Your task to perform on an android device: change the clock style Image 0: 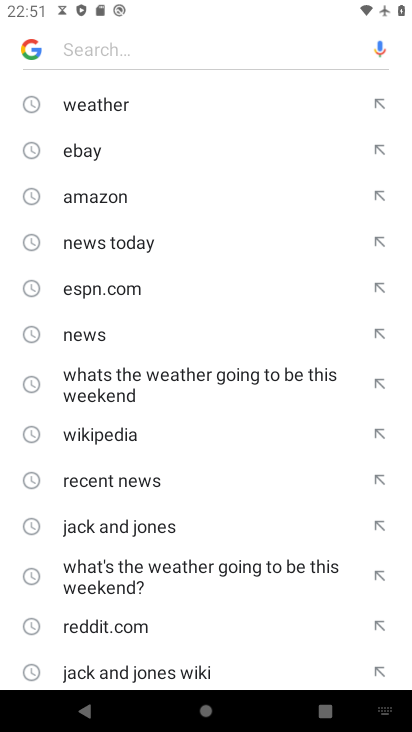
Step 0: press back button
Your task to perform on an android device: change the clock style Image 1: 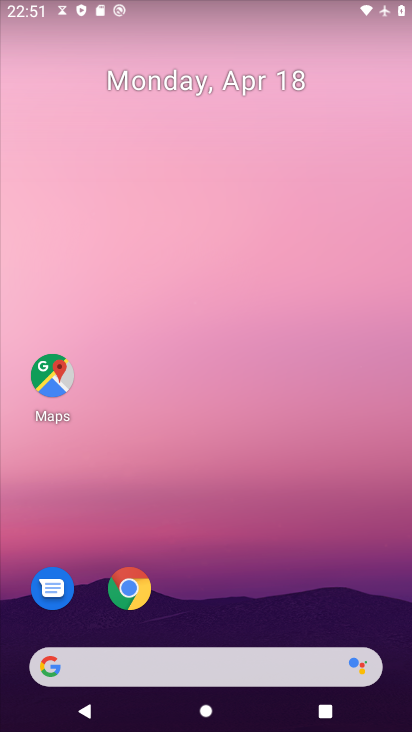
Step 1: drag from (351, 541) to (172, 4)
Your task to perform on an android device: change the clock style Image 2: 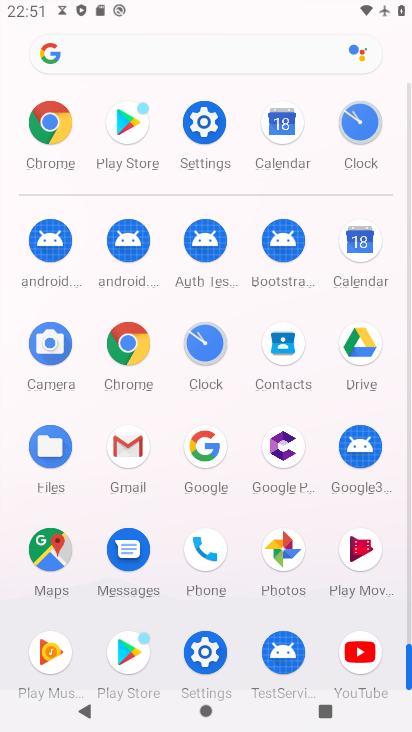
Step 2: drag from (12, 392) to (1, 196)
Your task to perform on an android device: change the clock style Image 3: 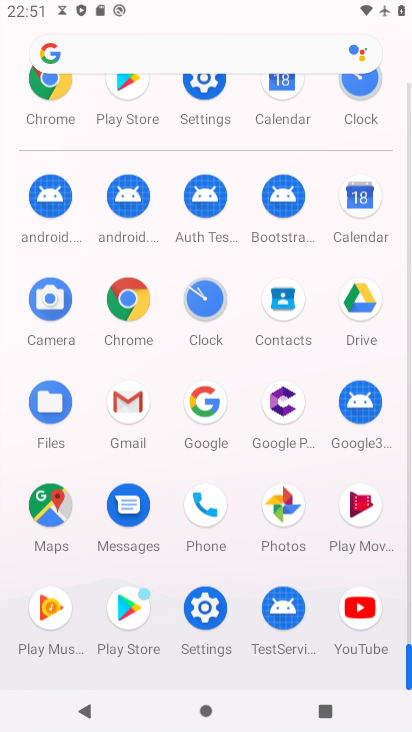
Step 3: drag from (10, 201) to (12, 368)
Your task to perform on an android device: change the clock style Image 4: 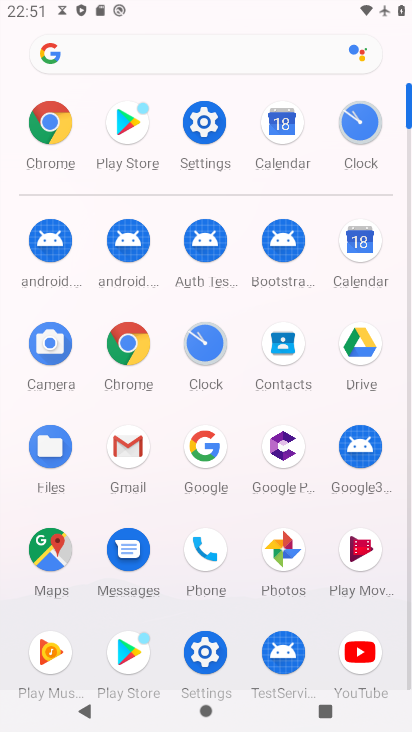
Step 4: drag from (6, 438) to (11, 221)
Your task to perform on an android device: change the clock style Image 5: 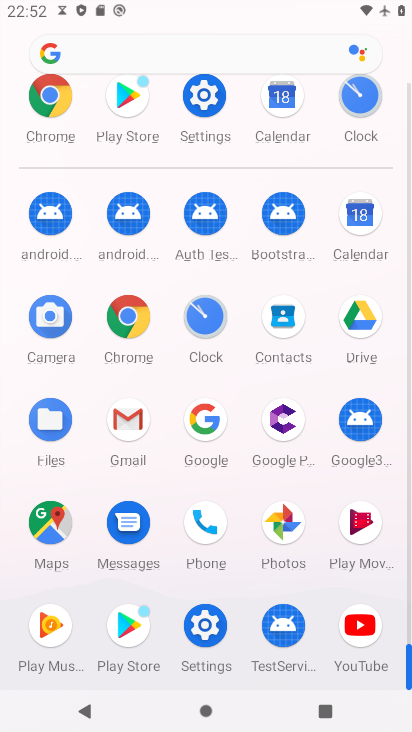
Step 5: drag from (11, 260) to (0, 450)
Your task to perform on an android device: change the clock style Image 6: 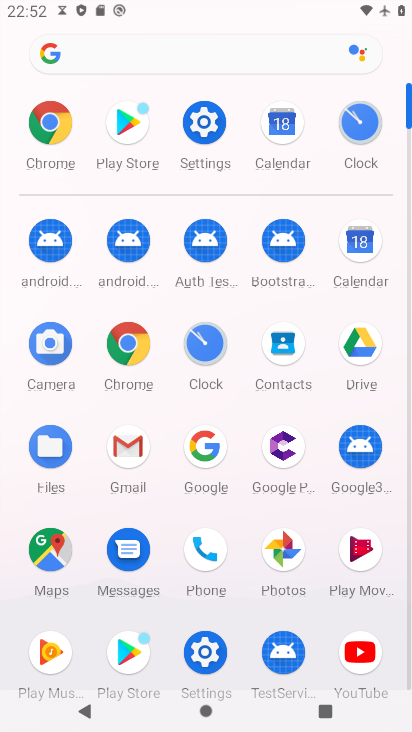
Step 6: click (360, 120)
Your task to perform on an android device: change the clock style Image 7: 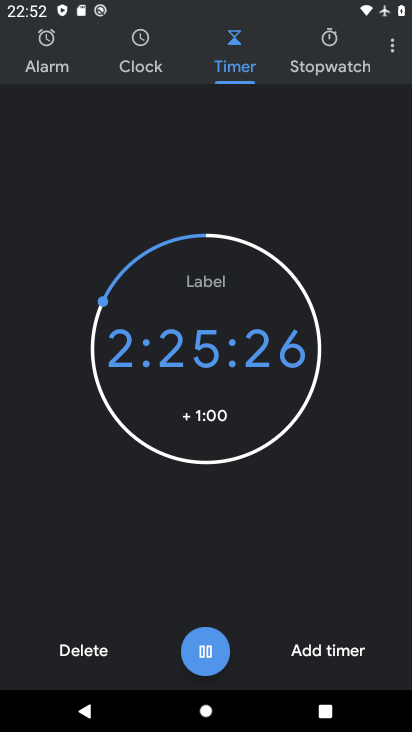
Step 7: click (391, 49)
Your task to perform on an android device: change the clock style Image 8: 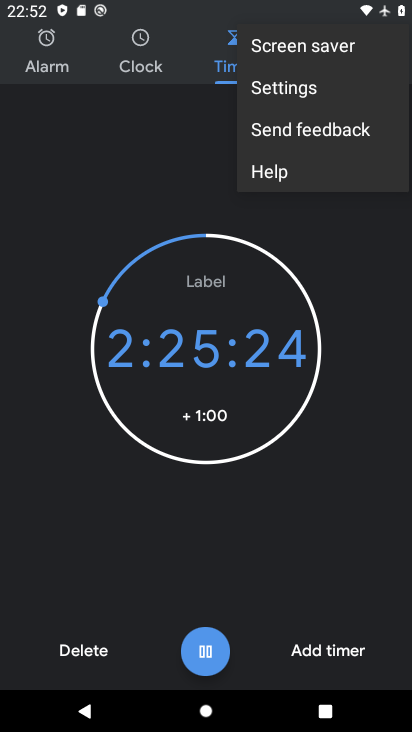
Step 8: click (311, 93)
Your task to perform on an android device: change the clock style Image 9: 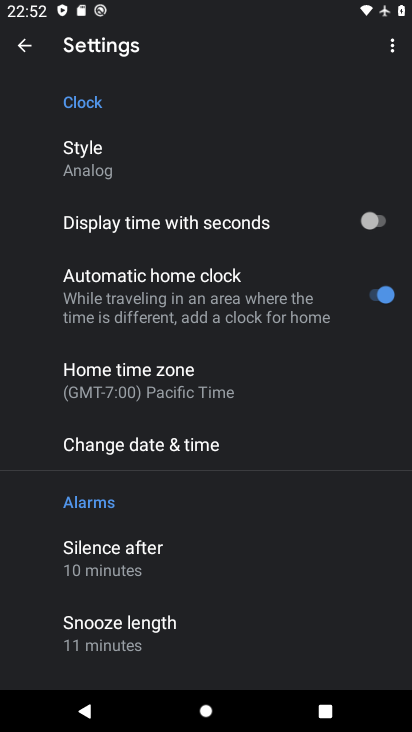
Step 9: click (149, 156)
Your task to perform on an android device: change the clock style Image 10: 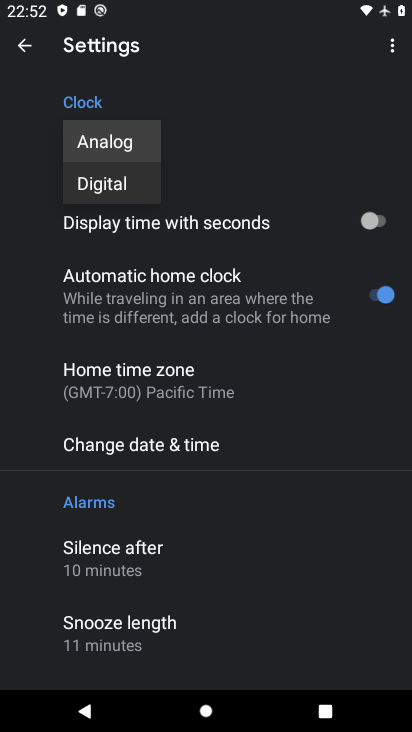
Step 10: click (120, 191)
Your task to perform on an android device: change the clock style Image 11: 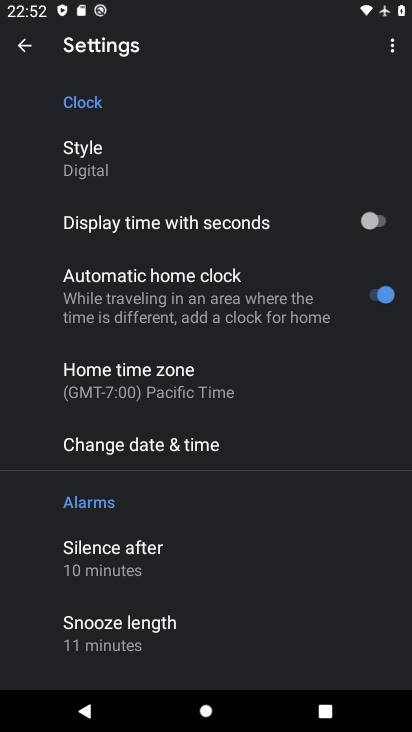
Step 11: task complete